Your task to perform on an android device: Search for "dell alienware" on newegg, select the first entry, and add it to the cart. Image 0: 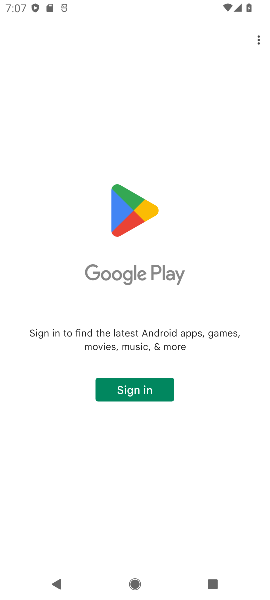
Step 0: press home button
Your task to perform on an android device: Search for "dell alienware" on newegg, select the first entry, and add it to the cart. Image 1: 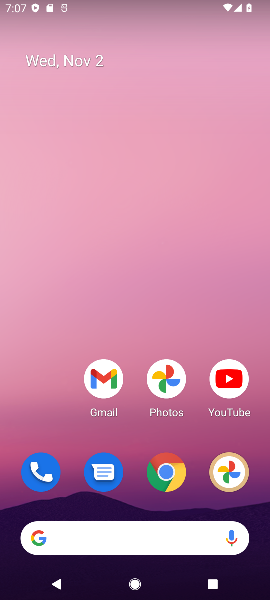
Step 1: click (167, 473)
Your task to perform on an android device: Search for "dell alienware" on newegg, select the first entry, and add it to the cart. Image 2: 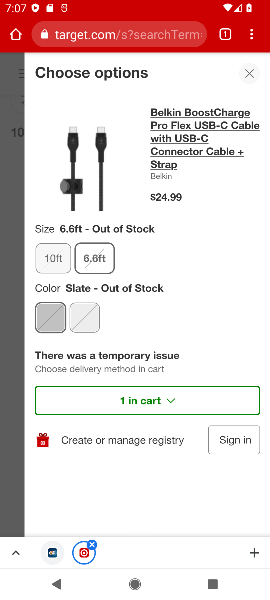
Step 2: click (130, 32)
Your task to perform on an android device: Search for "dell alienware" on newegg, select the first entry, and add it to the cart. Image 3: 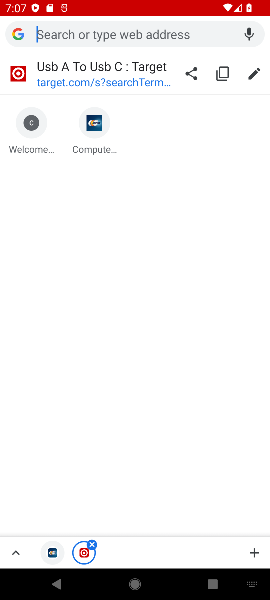
Step 3: type "newegg"
Your task to perform on an android device: Search for "dell alienware" on newegg, select the first entry, and add it to the cart. Image 4: 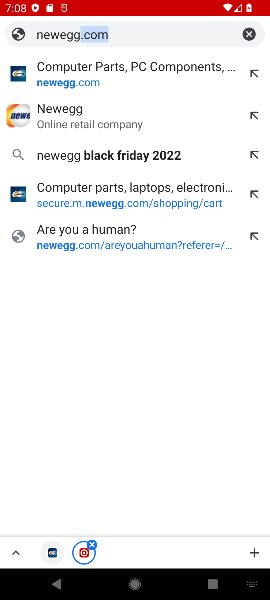
Step 4: click (102, 82)
Your task to perform on an android device: Search for "dell alienware" on newegg, select the first entry, and add it to the cart. Image 5: 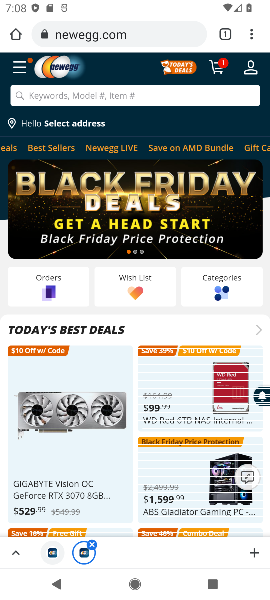
Step 5: click (147, 94)
Your task to perform on an android device: Search for "dell alienware" on newegg, select the first entry, and add it to the cart. Image 6: 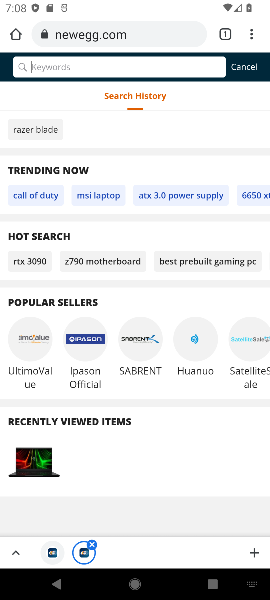
Step 6: type "dell alienware"
Your task to perform on an android device: Search for "dell alienware" on newegg, select the first entry, and add it to the cart. Image 7: 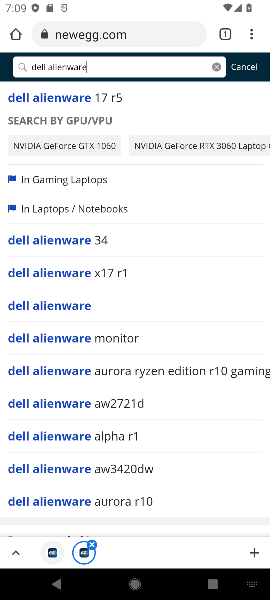
Step 7: click (51, 100)
Your task to perform on an android device: Search for "dell alienware" on newegg, select the first entry, and add it to the cart. Image 8: 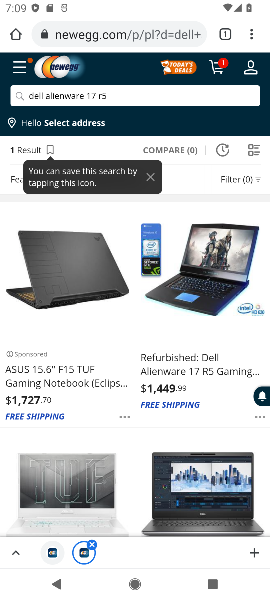
Step 8: click (34, 97)
Your task to perform on an android device: Search for "dell alienware" on newegg, select the first entry, and add it to the cart. Image 9: 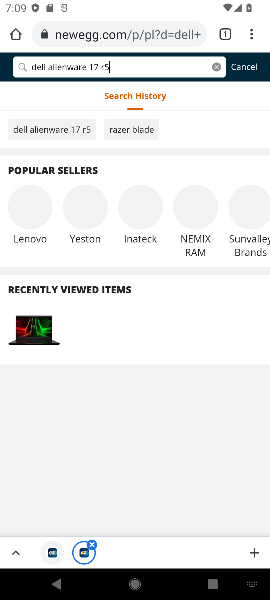
Step 9: click (67, 270)
Your task to perform on an android device: Search for "dell alienware" on newegg, select the first entry, and add it to the cart. Image 10: 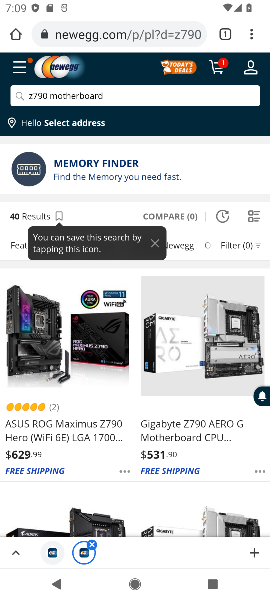
Step 10: click (63, 337)
Your task to perform on an android device: Search for "dell alienware" on newegg, select the first entry, and add it to the cart. Image 11: 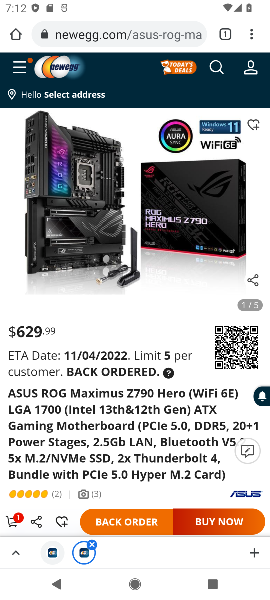
Step 11: task complete